Your task to perform on an android device: stop showing notifications on the lock screen Image 0: 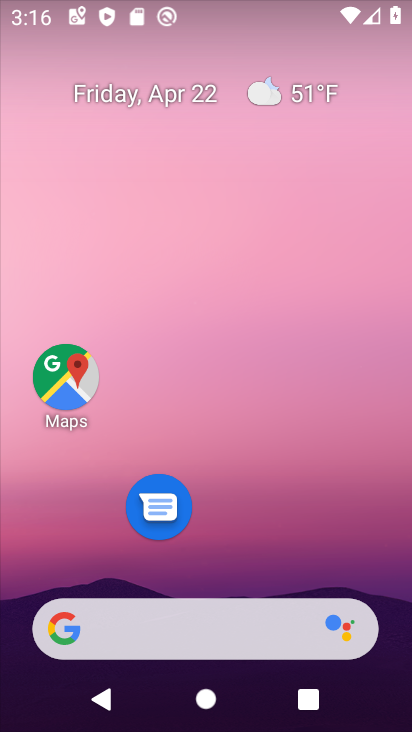
Step 0: drag from (191, 481) to (231, 76)
Your task to perform on an android device: stop showing notifications on the lock screen Image 1: 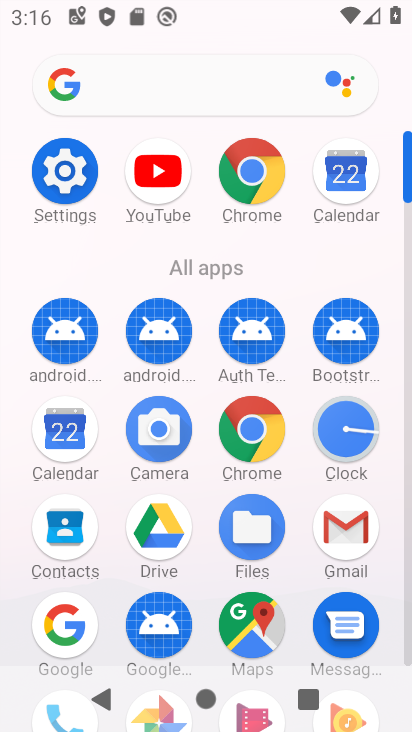
Step 1: click (65, 169)
Your task to perform on an android device: stop showing notifications on the lock screen Image 2: 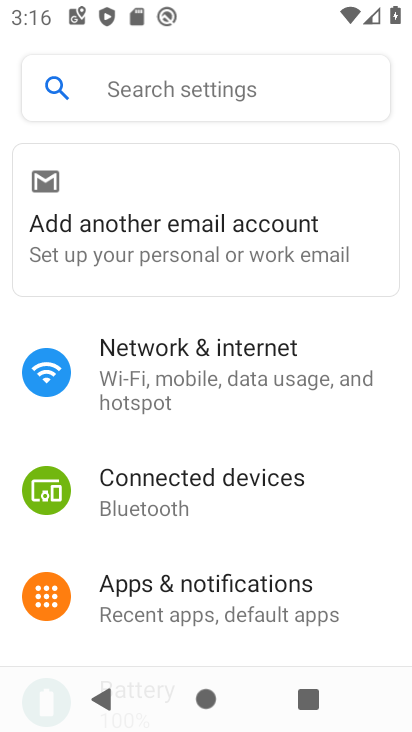
Step 2: click (236, 600)
Your task to perform on an android device: stop showing notifications on the lock screen Image 3: 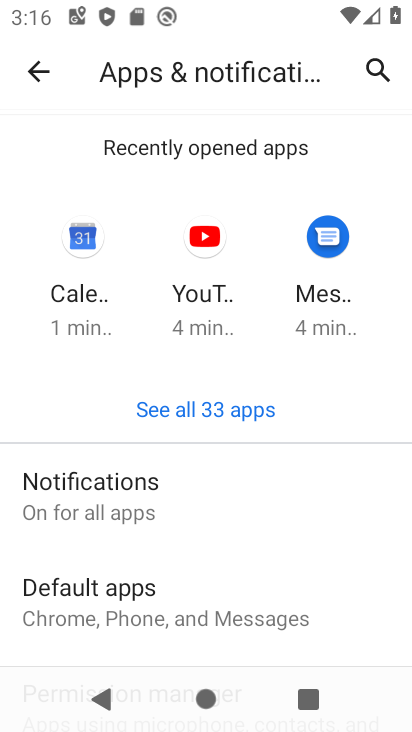
Step 3: drag from (191, 576) to (225, 238)
Your task to perform on an android device: stop showing notifications on the lock screen Image 4: 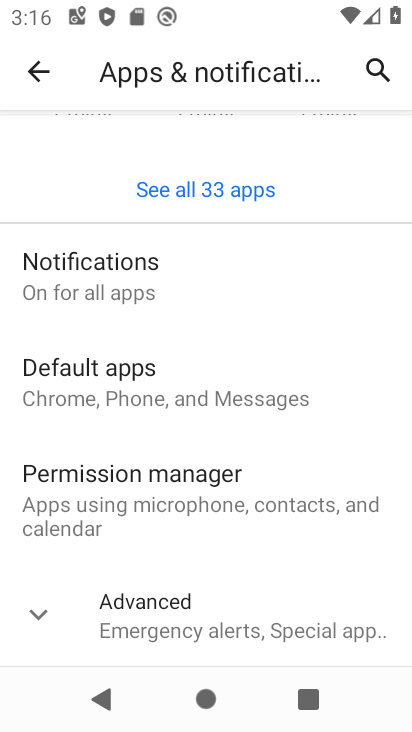
Step 4: click (125, 280)
Your task to perform on an android device: stop showing notifications on the lock screen Image 5: 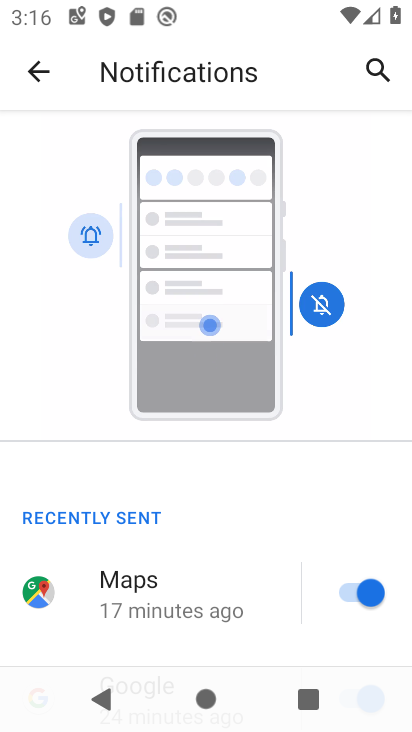
Step 5: drag from (175, 615) to (311, 83)
Your task to perform on an android device: stop showing notifications on the lock screen Image 6: 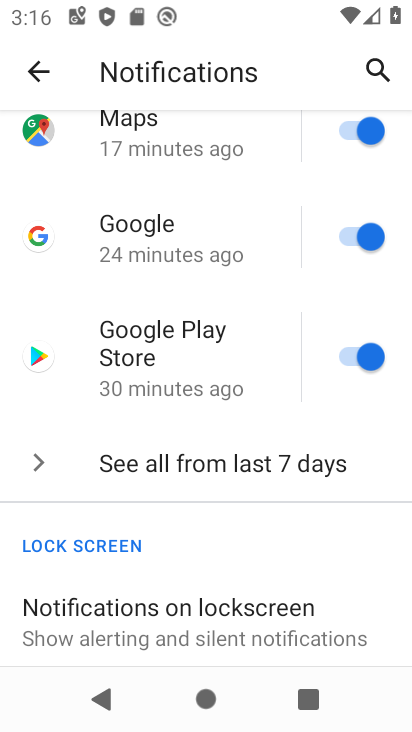
Step 6: drag from (198, 575) to (241, 242)
Your task to perform on an android device: stop showing notifications on the lock screen Image 7: 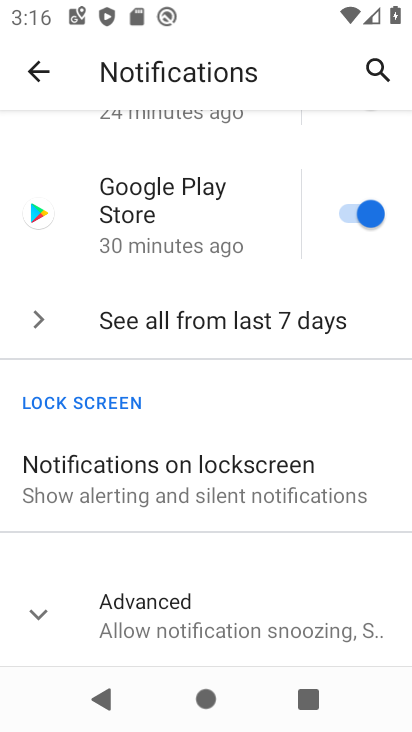
Step 7: click (198, 492)
Your task to perform on an android device: stop showing notifications on the lock screen Image 8: 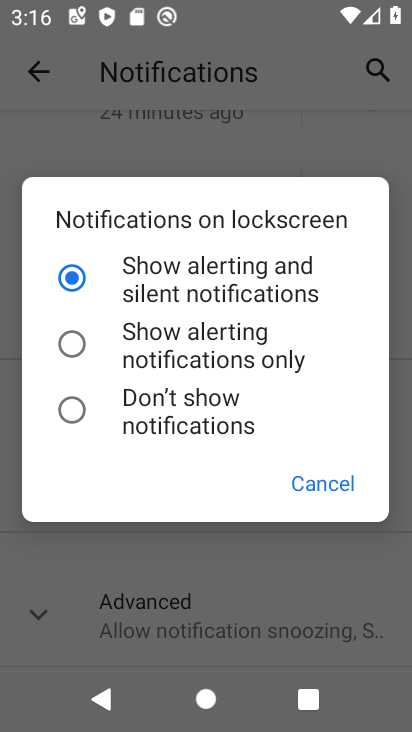
Step 8: click (70, 411)
Your task to perform on an android device: stop showing notifications on the lock screen Image 9: 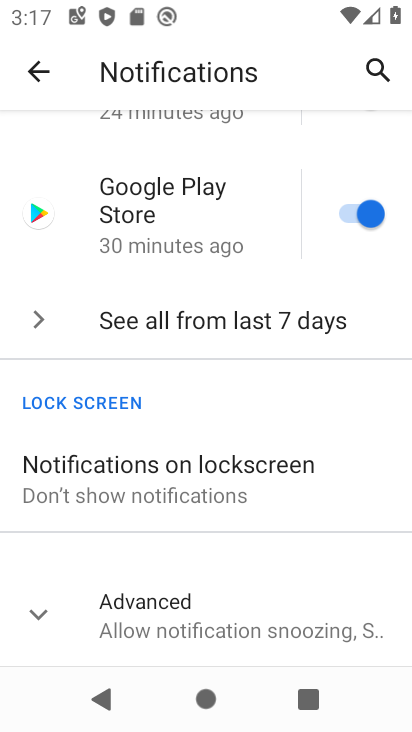
Step 9: task complete